Your task to perform on an android device: turn off wifi Image 0: 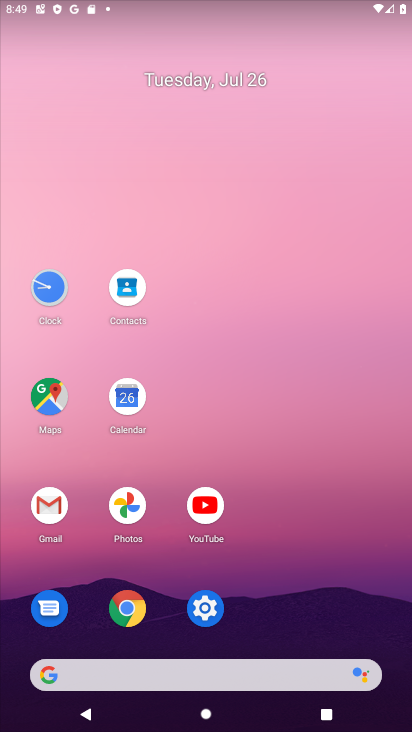
Step 0: click (42, 401)
Your task to perform on an android device: turn off wifi Image 1: 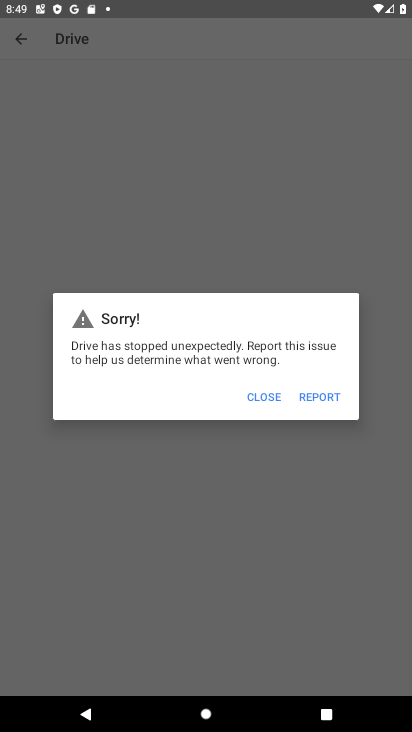
Step 1: press home button
Your task to perform on an android device: turn off wifi Image 2: 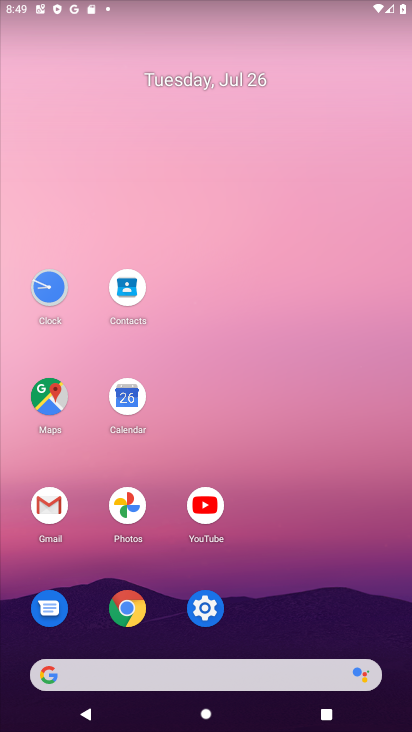
Step 2: click (203, 614)
Your task to perform on an android device: turn off wifi Image 3: 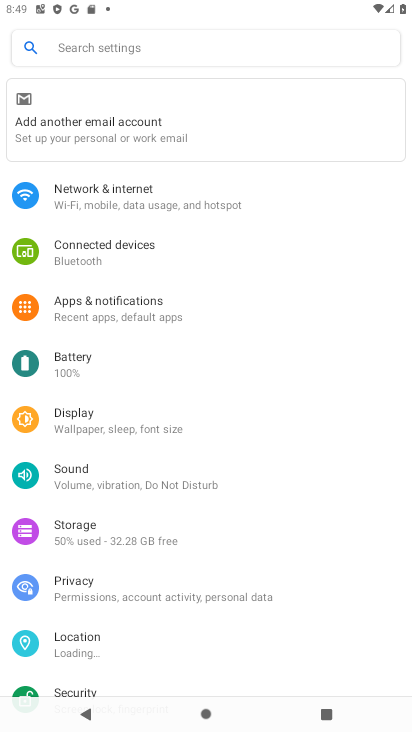
Step 3: click (124, 193)
Your task to perform on an android device: turn off wifi Image 4: 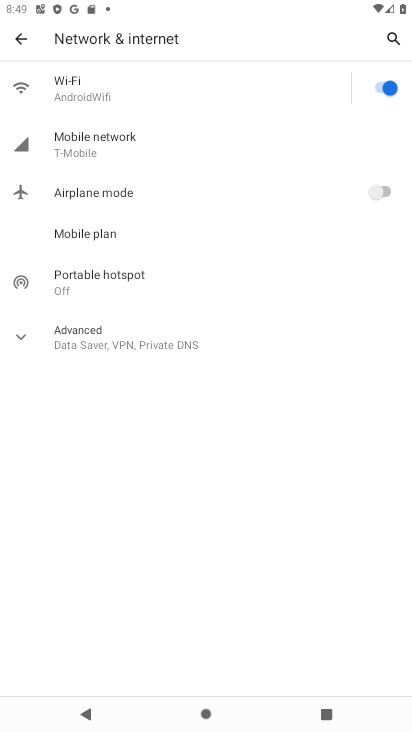
Step 4: click (396, 90)
Your task to perform on an android device: turn off wifi Image 5: 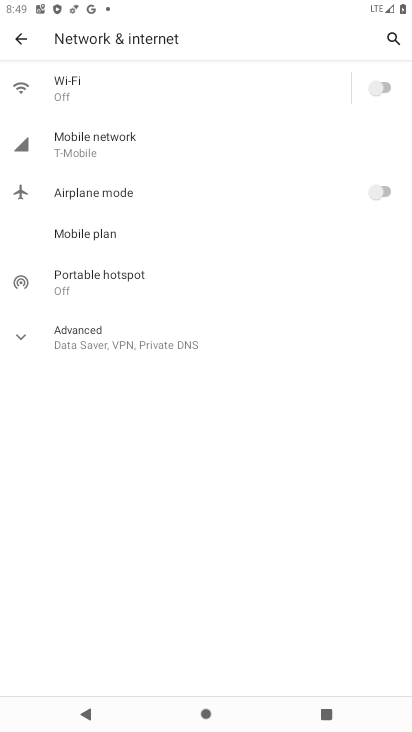
Step 5: task complete